Your task to perform on an android device: create a new album in the google photos Image 0: 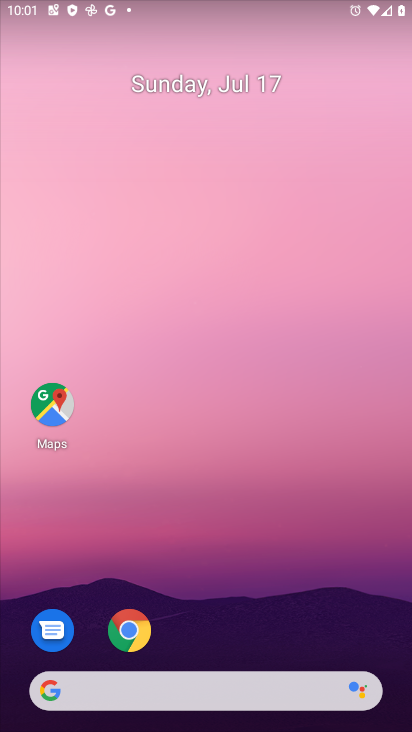
Step 0: drag from (209, 442) to (209, 124)
Your task to perform on an android device: create a new album in the google photos Image 1: 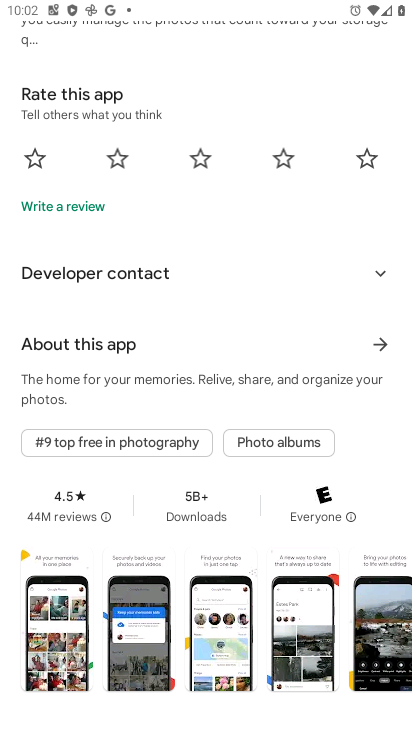
Step 1: press home button
Your task to perform on an android device: create a new album in the google photos Image 2: 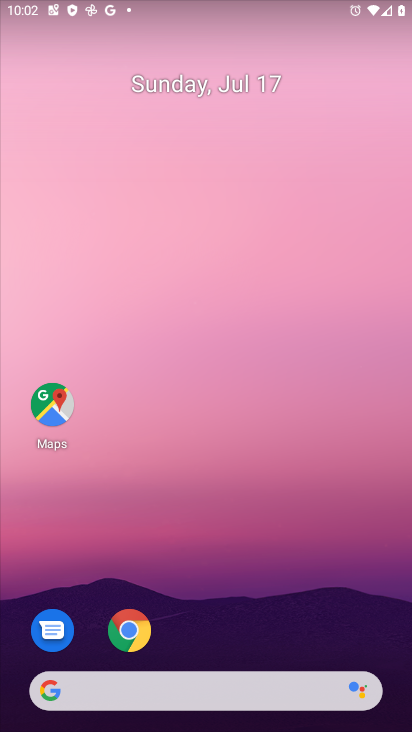
Step 2: drag from (211, 502) to (219, 97)
Your task to perform on an android device: create a new album in the google photos Image 3: 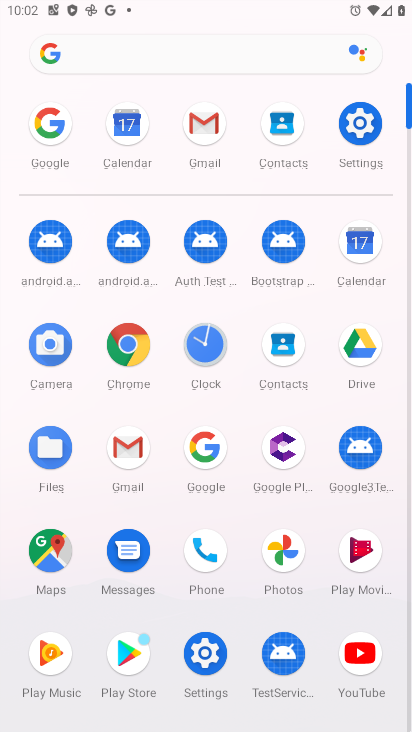
Step 3: click (283, 542)
Your task to perform on an android device: create a new album in the google photos Image 4: 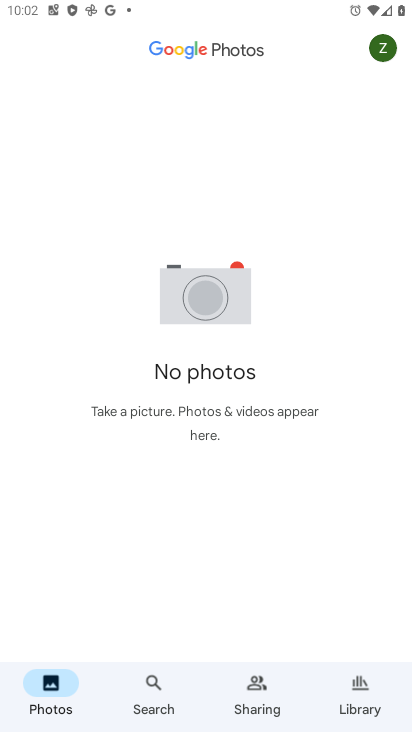
Step 4: click (349, 691)
Your task to perform on an android device: create a new album in the google photos Image 5: 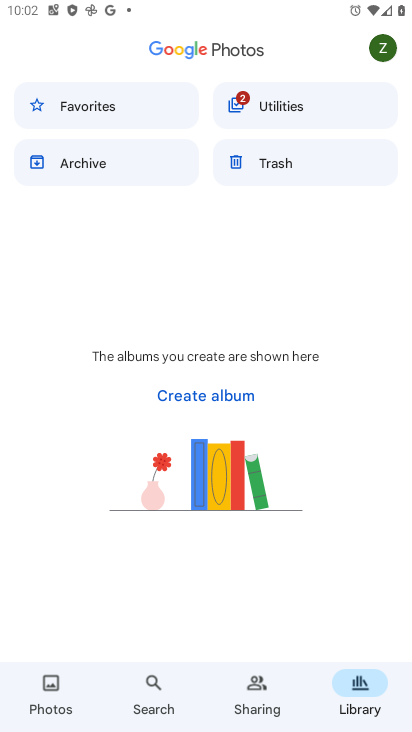
Step 5: click (209, 383)
Your task to perform on an android device: create a new album in the google photos Image 6: 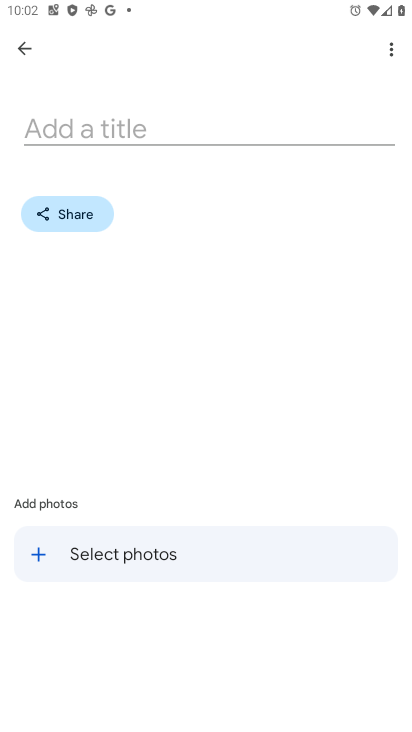
Step 6: click (67, 128)
Your task to perform on an android device: create a new album in the google photos Image 7: 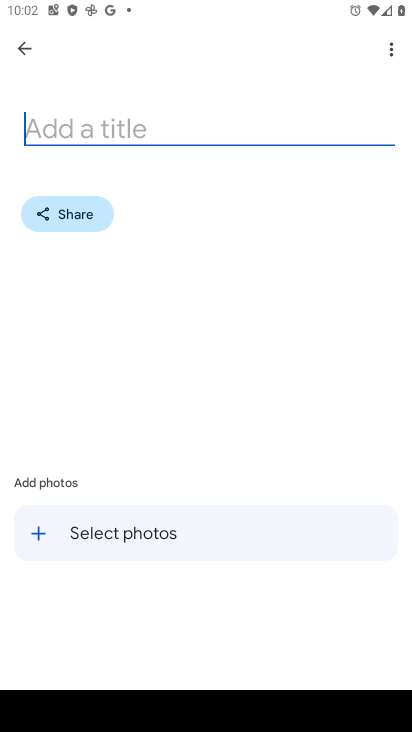
Step 7: type "Manoj"
Your task to perform on an android device: create a new album in the google photos Image 8: 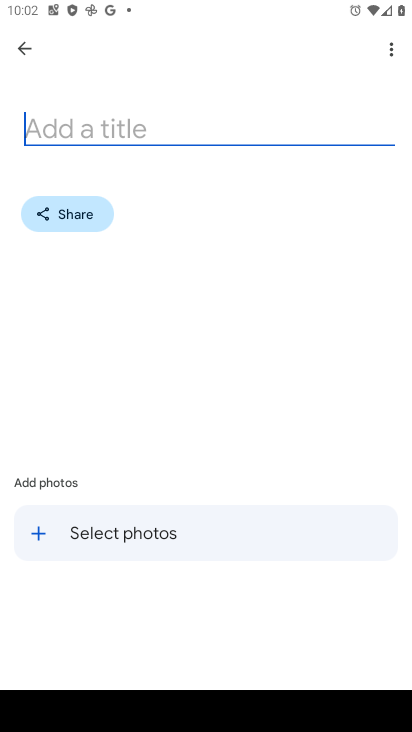
Step 8: click (116, 525)
Your task to perform on an android device: create a new album in the google photos Image 9: 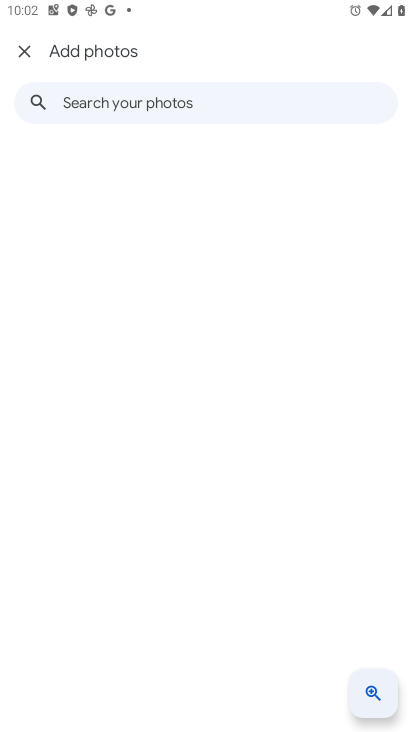
Step 9: click (22, 48)
Your task to perform on an android device: create a new album in the google photos Image 10: 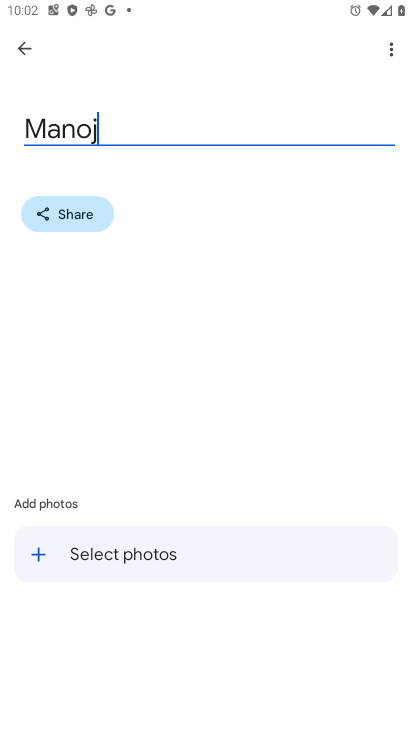
Step 10: drag from (222, 551) to (248, 351)
Your task to perform on an android device: create a new album in the google photos Image 11: 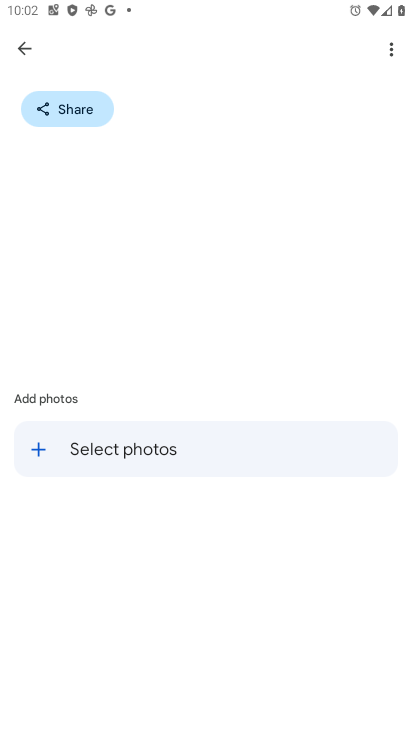
Step 11: drag from (178, 587) to (208, 292)
Your task to perform on an android device: create a new album in the google photos Image 12: 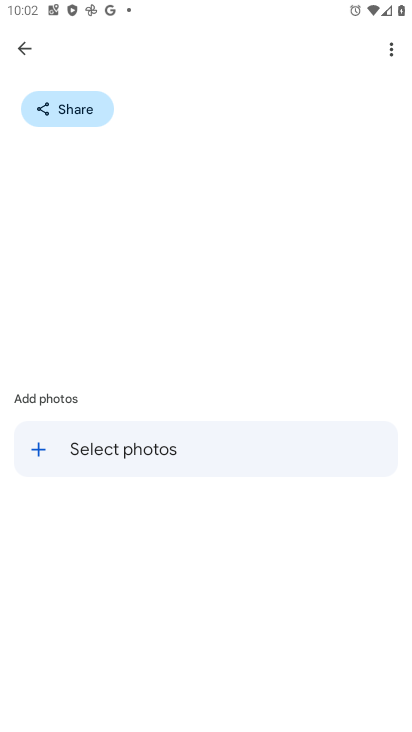
Step 12: drag from (175, 529) to (255, 199)
Your task to perform on an android device: create a new album in the google photos Image 13: 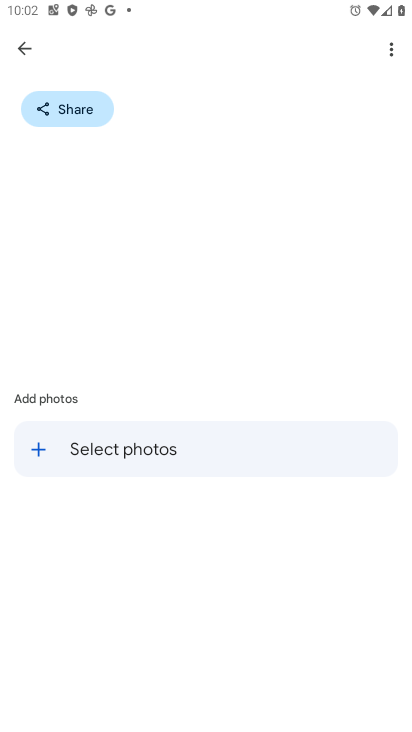
Step 13: drag from (255, 238) to (230, 547)
Your task to perform on an android device: create a new album in the google photos Image 14: 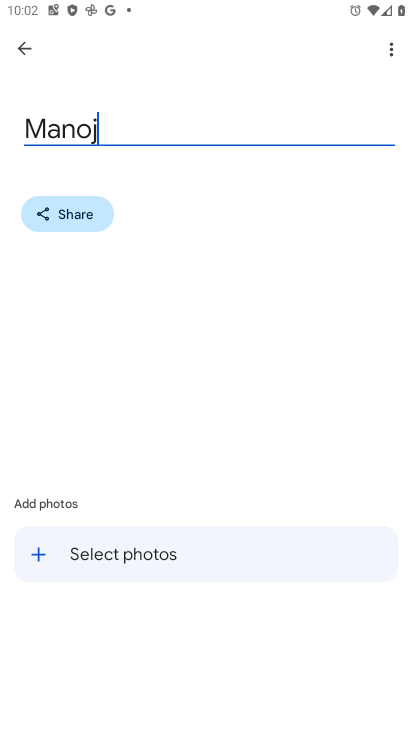
Step 14: click (386, 40)
Your task to perform on an android device: create a new album in the google photos Image 15: 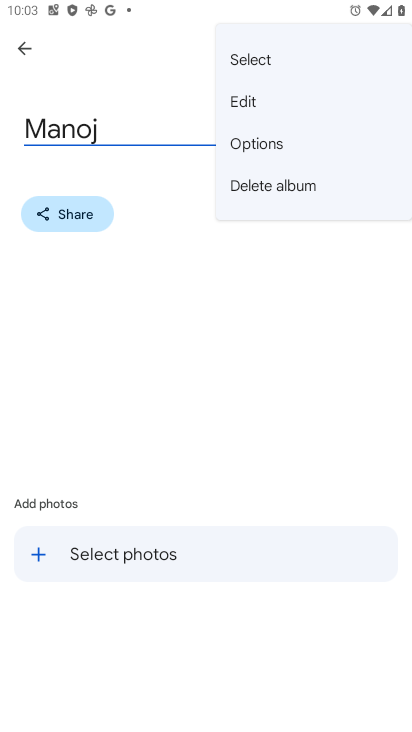
Step 15: click (153, 425)
Your task to perform on an android device: create a new album in the google photos Image 16: 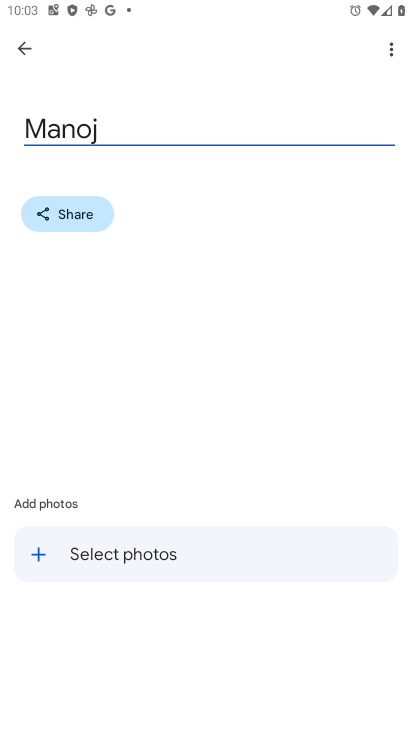
Step 16: click (24, 44)
Your task to perform on an android device: create a new album in the google photos Image 17: 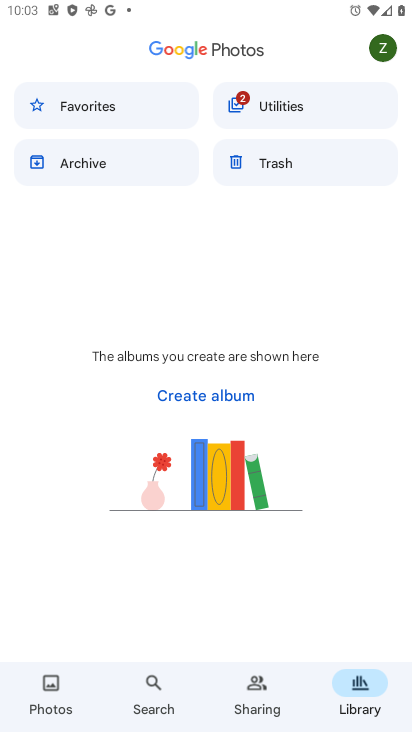
Step 17: click (372, 685)
Your task to perform on an android device: create a new album in the google photos Image 18: 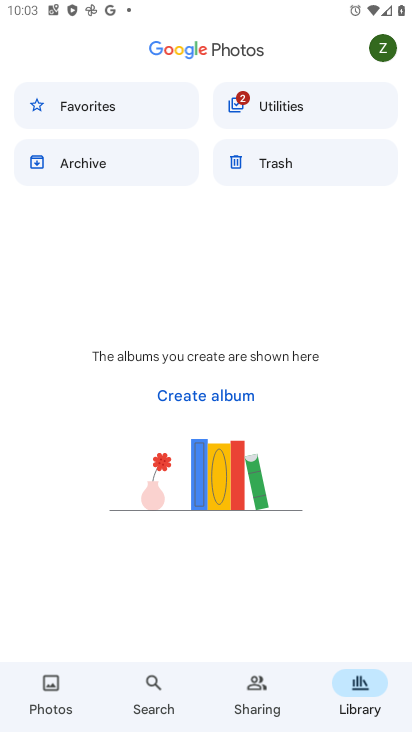
Step 18: click (47, 697)
Your task to perform on an android device: create a new album in the google photos Image 19: 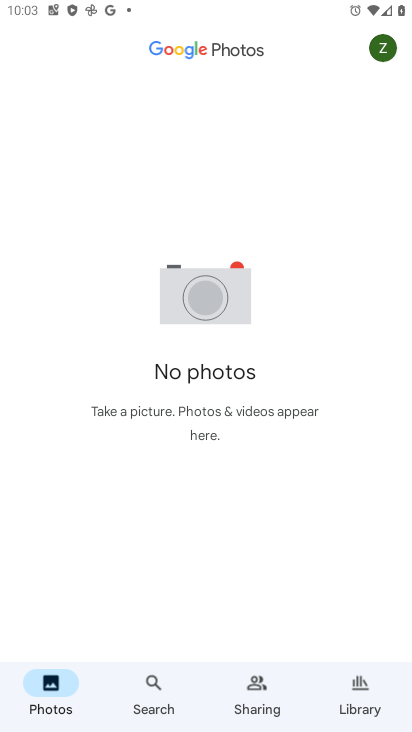
Step 19: task complete